Your task to perform on an android device: Go to notification settings Image 0: 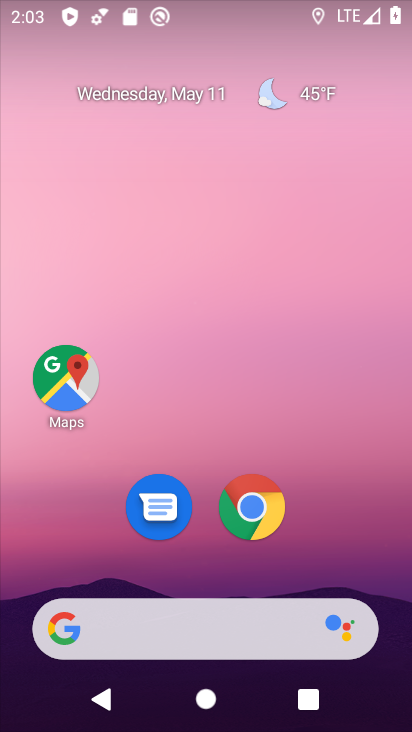
Step 0: drag from (337, 537) to (324, 61)
Your task to perform on an android device: Go to notification settings Image 1: 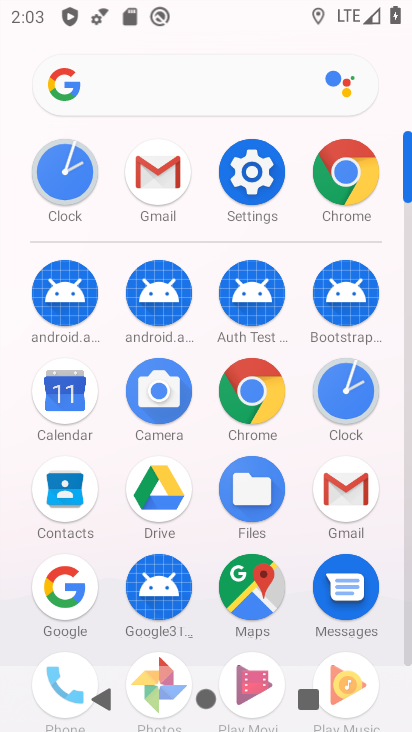
Step 1: click (251, 169)
Your task to perform on an android device: Go to notification settings Image 2: 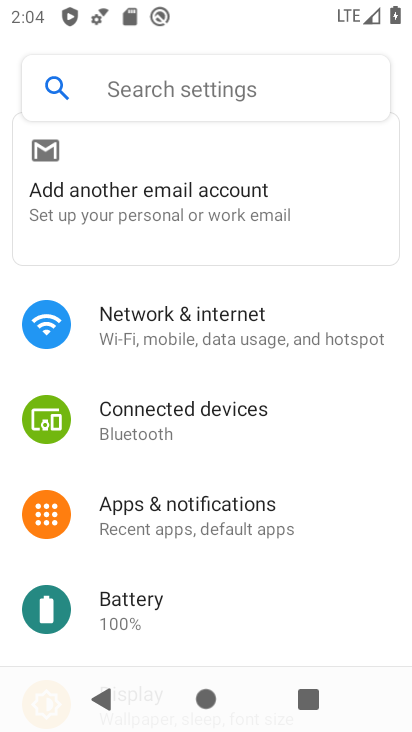
Step 2: drag from (269, 565) to (266, 308)
Your task to perform on an android device: Go to notification settings Image 3: 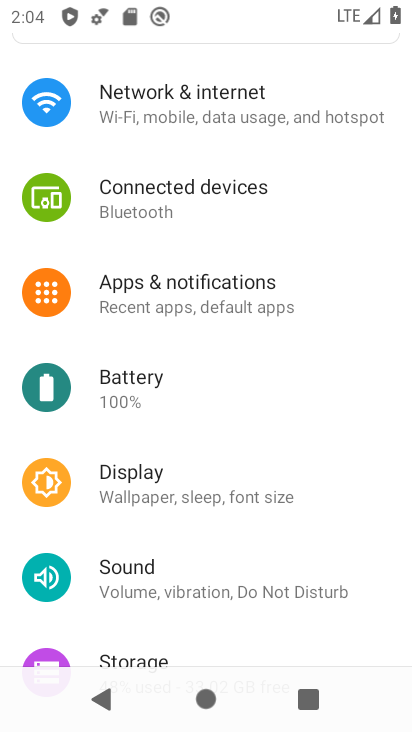
Step 3: click (214, 281)
Your task to perform on an android device: Go to notification settings Image 4: 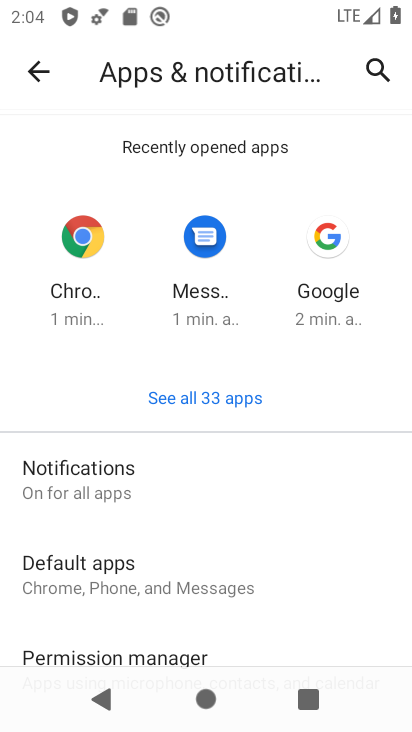
Step 4: drag from (278, 562) to (303, 262)
Your task to perform on an android device: Go to notification settings Image 5: 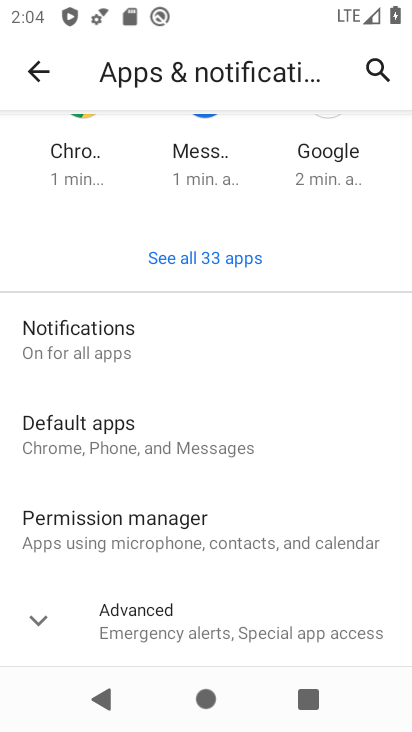
Step 5: click (134, 340)
Your task to perform on an android device: Go to notification settings Image 6: 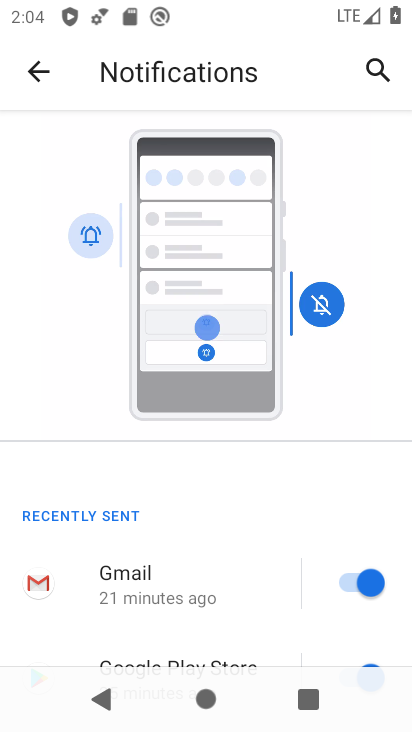
Step 6: task complete